Your task to perform on an android device: Open calendar and show me the third week of next month Image 0: 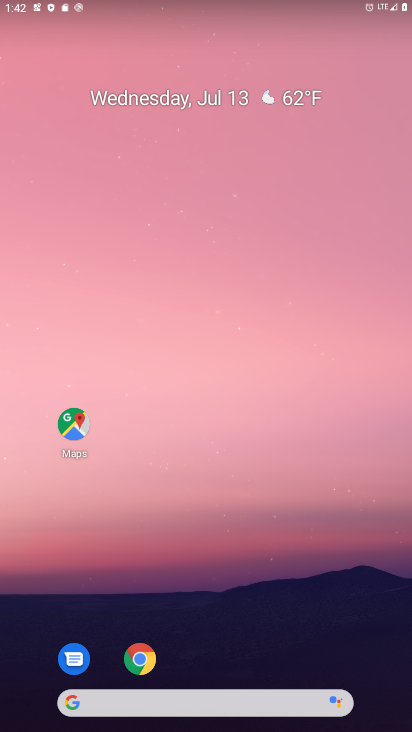
Step 0: click (239, 726)
Your task to perform on an android device: Open calendar and show me the third week of next month Image 1: 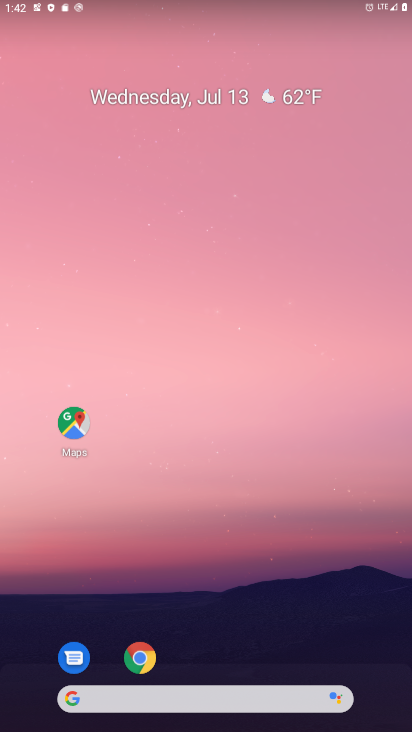
Step 1: drag from (227, 262) to (221, 44)
Your task to perform on an android device: Open calendar and show me the third week of next month Image 2: 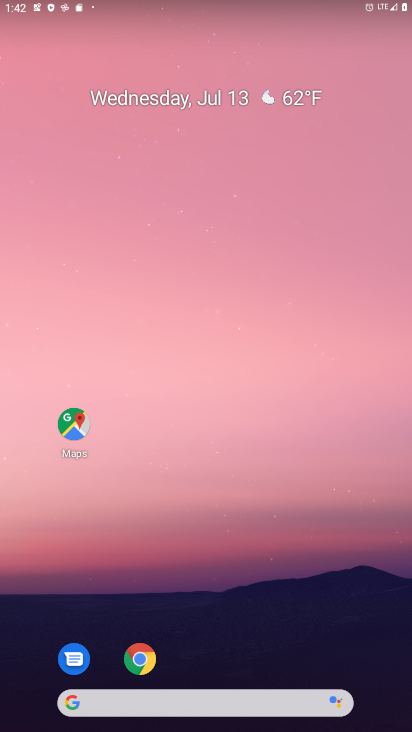
Step 2: click (231, 726)
Your task to perform on an android device: Open calendar and show me the third week of next month Image 3: 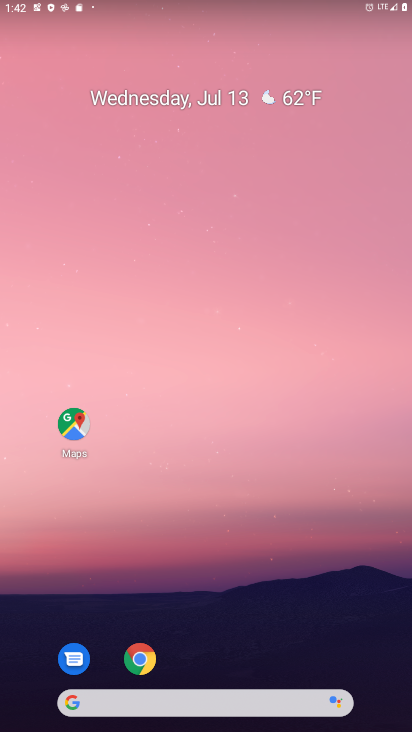
Step 3: drag from (227, 46) to (241, 4)
Your task to perform on an android device: Open calendar and show me the third week of next month Image 4: 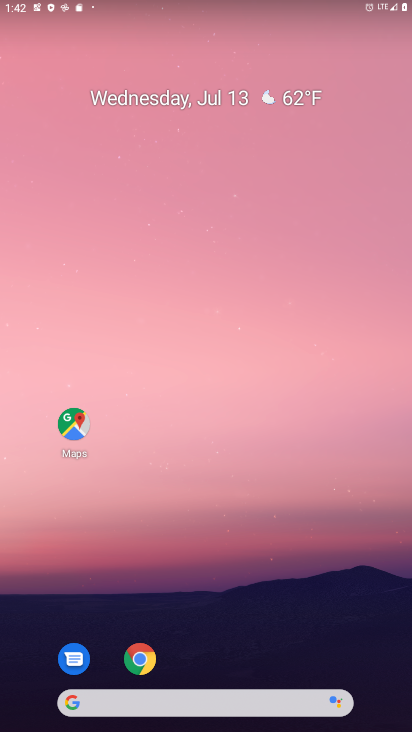
Step 4: drag from (220, 721) to (219, 71)
Your task to perform on an android device: Open calendar and show me the third week of next month Image 5: 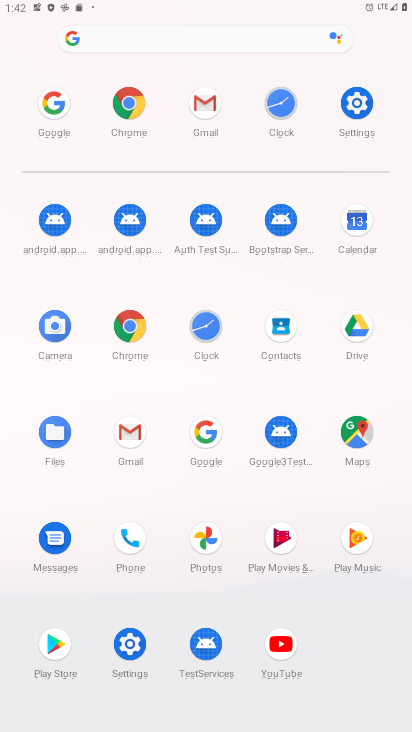
Step 5: click (354, 222)
Your task to perform on an android device: Open calendar and show me the third week of next month Image 6: 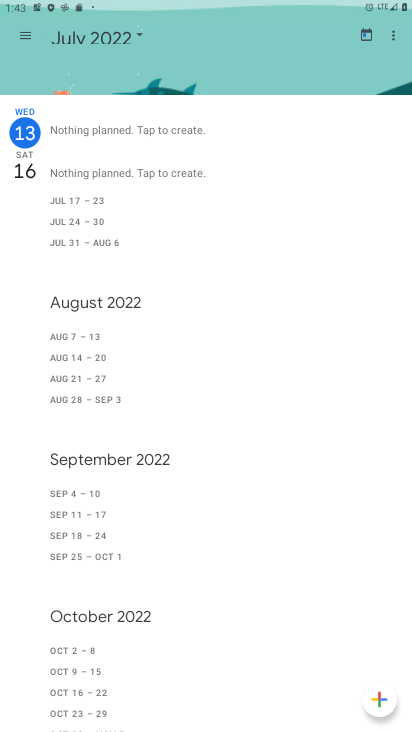
Step 6: click (137, 35)
Your task to perform on an android device: Open calendar and show me the third week of next month Image 7: 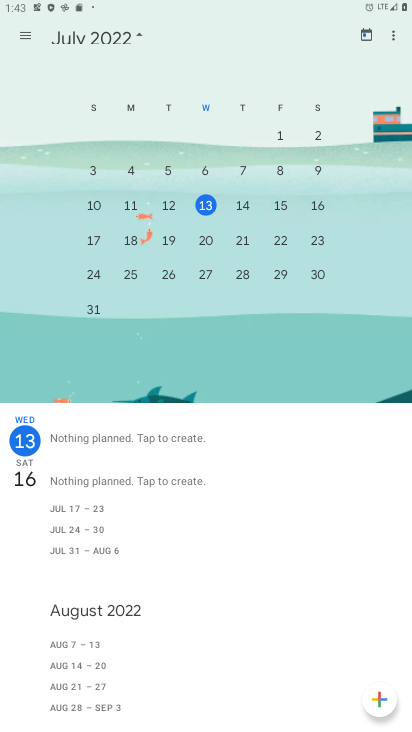
Step 7: click (321, 225)
Your task to perform on an android device: Open calendar and show me the third week of next month Image 8: 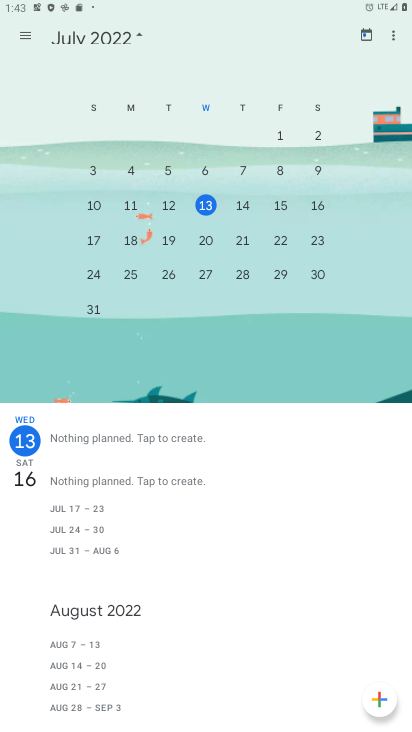
Step 8: drag from (180, 226) to (41, 223)
Your task to perform on an android device: Open calendar and show me the third week of next month Image 9: 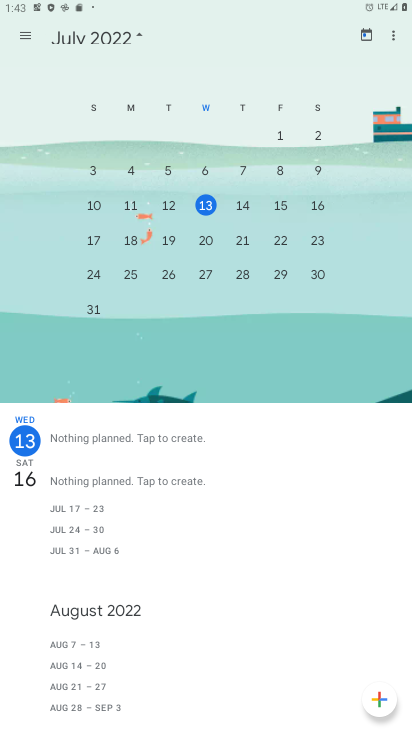
Step 9: drag from (329, 214) to (0, 266)
Your task to perform on an android device: Open calendar and show me the third week of next month Image 10: 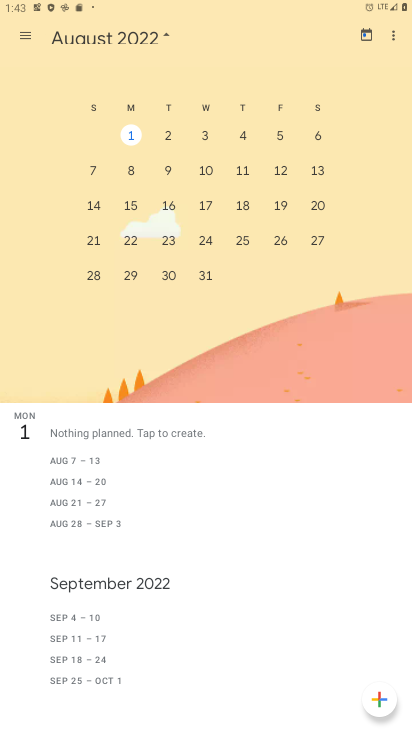
Step 10: click (130, 208)
Your task to perform on an android device: Open calendar and show me the third week of next month Image 11: 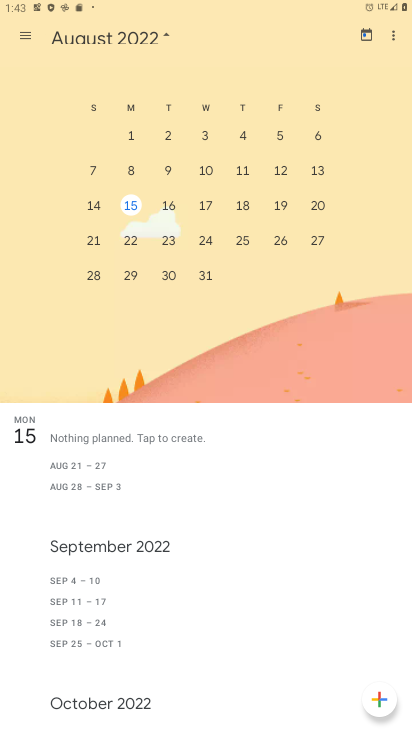
Step 11: click (24, 27)
Your task to perform on an android device: Open calendar and show me the third week of next month Image 12: 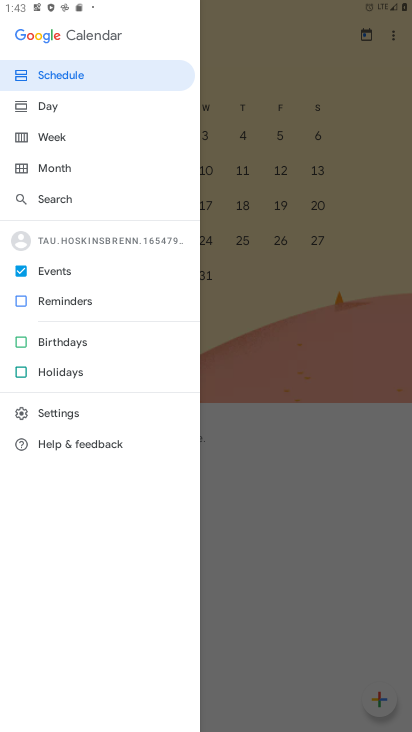
Step 12: click (62, 138)
Your task to perform on an android device: Open calendar and show me the third week of next month Image 13: 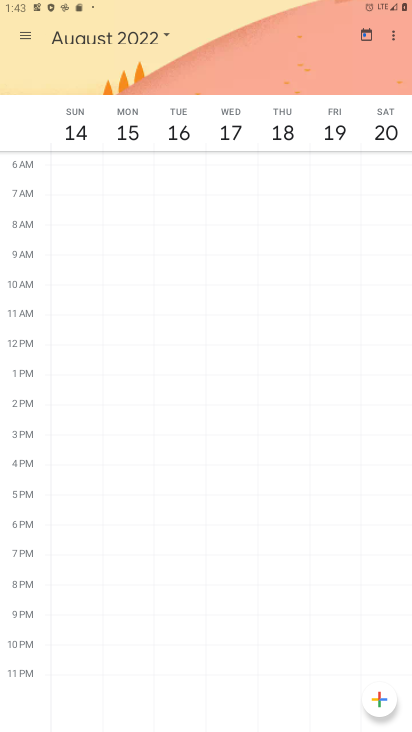
Step 13: task complete